Your task to perform on an android device: Is it going to rain this weekend? Image 0: 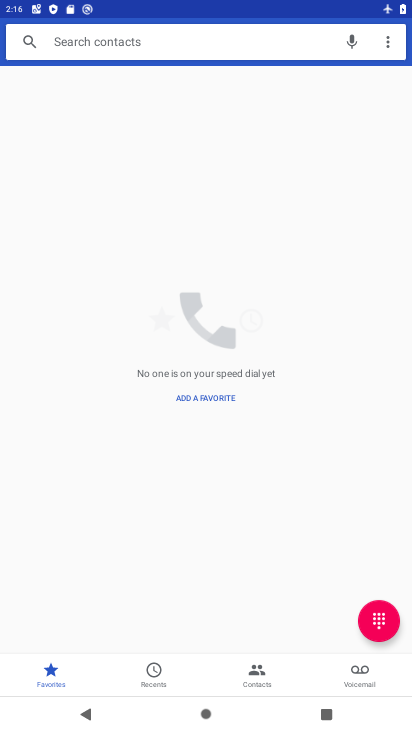
Step 0: press home button
Your task to perform on an android device: Is it going to rain this weekend? Image 1: 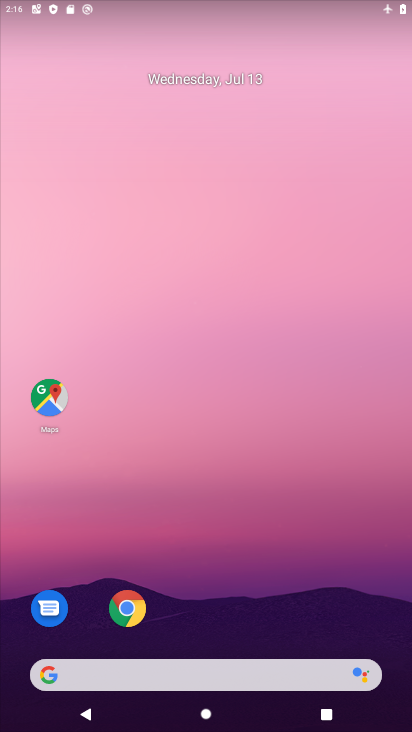
Step 1: drag from (178, 595) to (231, 206)
Your task to perform on an android device: Is it going to rain this weekend? Image 2: 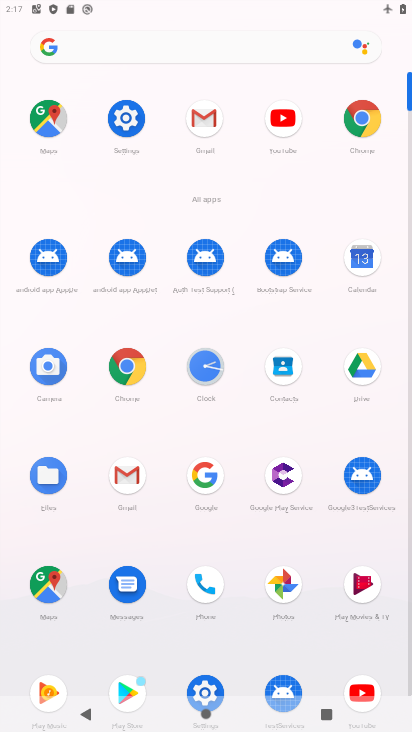
Step 2: click (198, 491)
Your task to perform on an android device: Is it going to rain this weekend? Image 3: 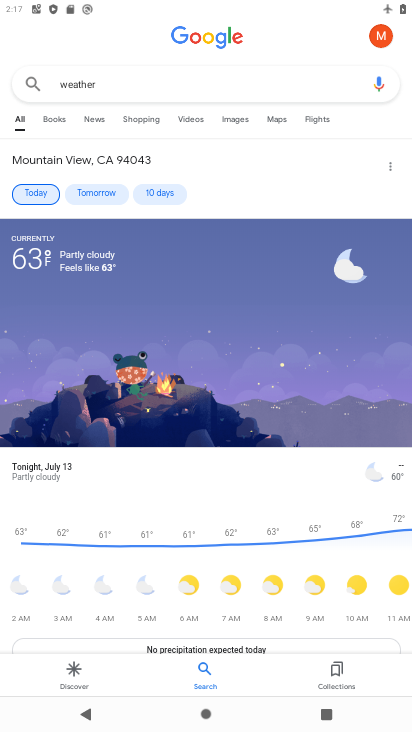
Step 3: click (165, 191)
Your task to perform on an android device: Is it going to rain this weekend? Image 4: 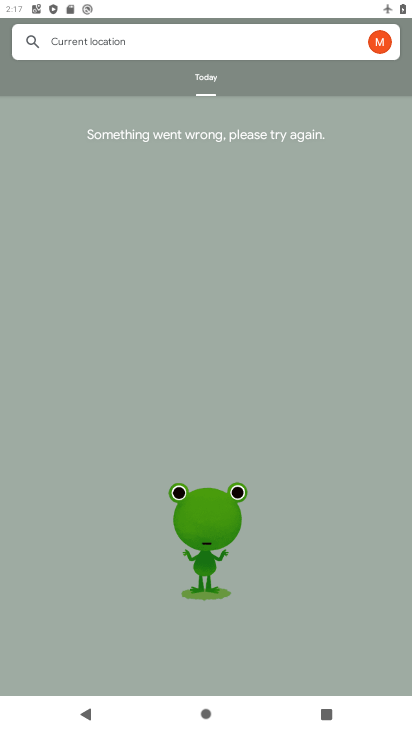
Step 4: task complete